Your task to perform on an android device: Open Reddit.com Image 0: 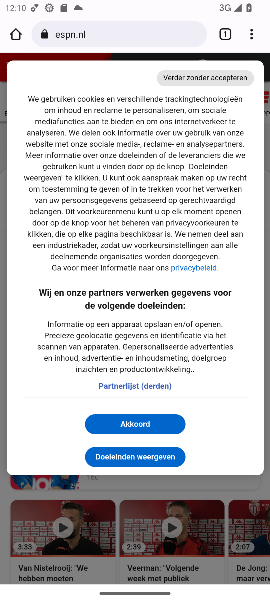
Step 0: click (99, 38)
Your task to perform on an android device: Open Reddit.com Image 1: 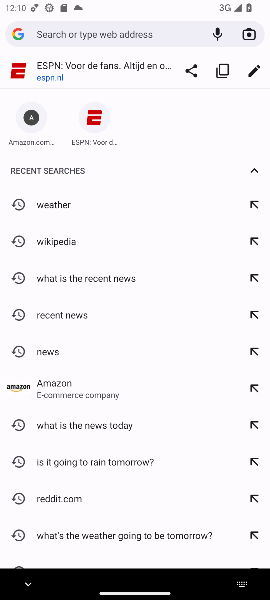
Step 1: type "reddit.com"
Your task to perform on an android device: Open Reddit.com Image 2: 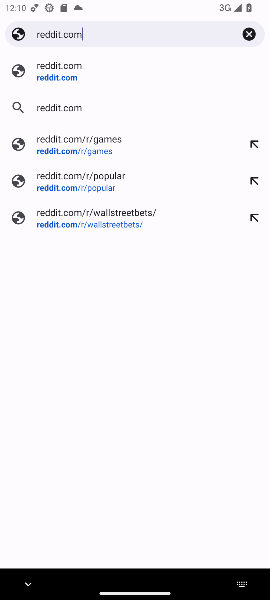
Step 2: click (180, 68)
Your task to perform on an android device: Open Reddit.com Image 3: 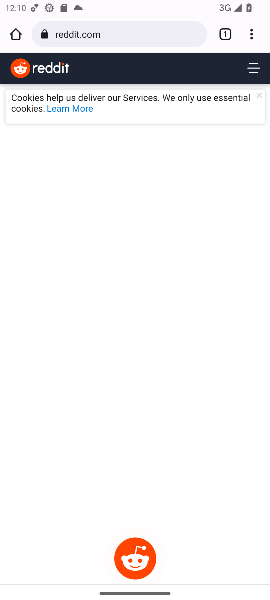
Step 3: task complete